Your task to perform on an android device: Go to Reddit.com Image 0: 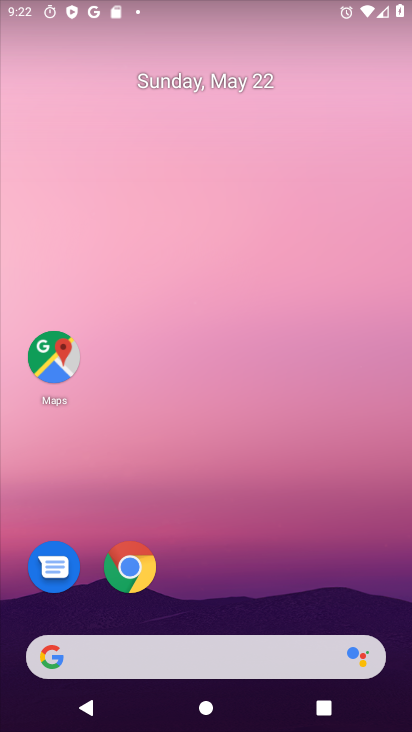
Step 0: click (126, 575)
Your task to perform on an android device: Go to Reddit.com Image 1: 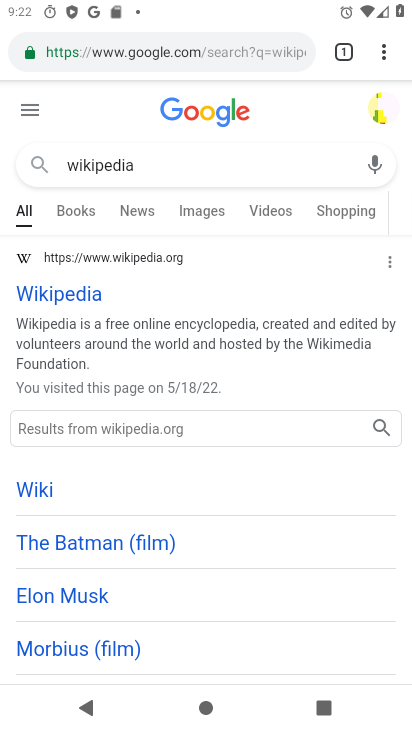
Step 1: click (182, 51)
Your task to perform on an android device: Go to Reddit.com Image 2: 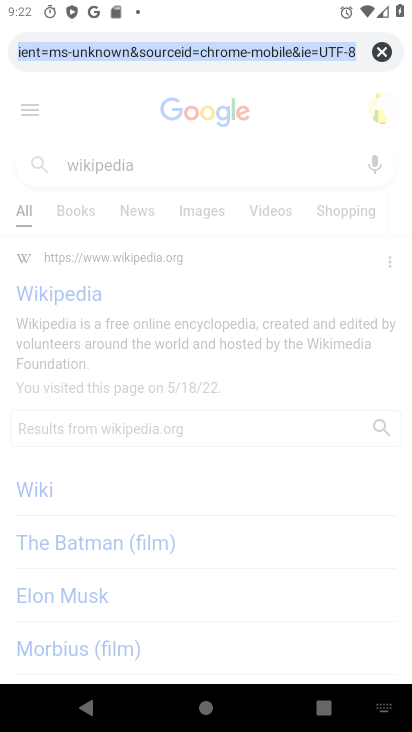
Step 2: type "Reddit.com"
Your task to perform on an android device: Go to Reddit.com Image 3: 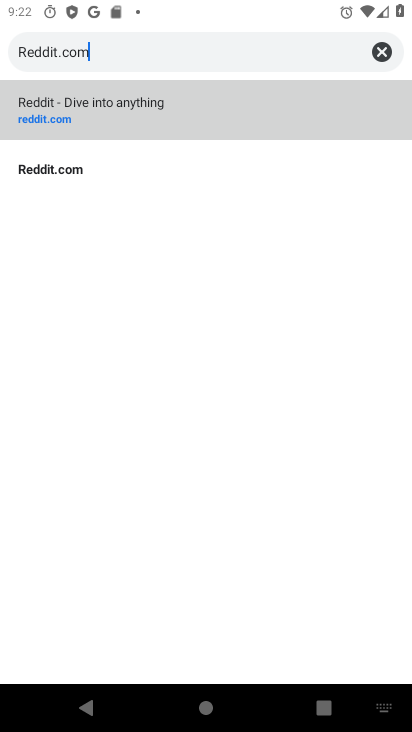
Step 3: click (71, 174)
Your task to perform on an android device: Go to Reddit.com Image 4: 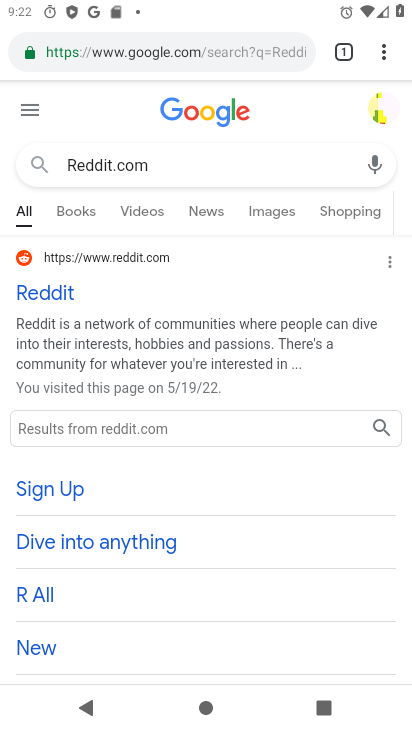
Step 4: task complete